Your task to perform on an android device: Open the phone app and click the voicemail tab. Image 0: 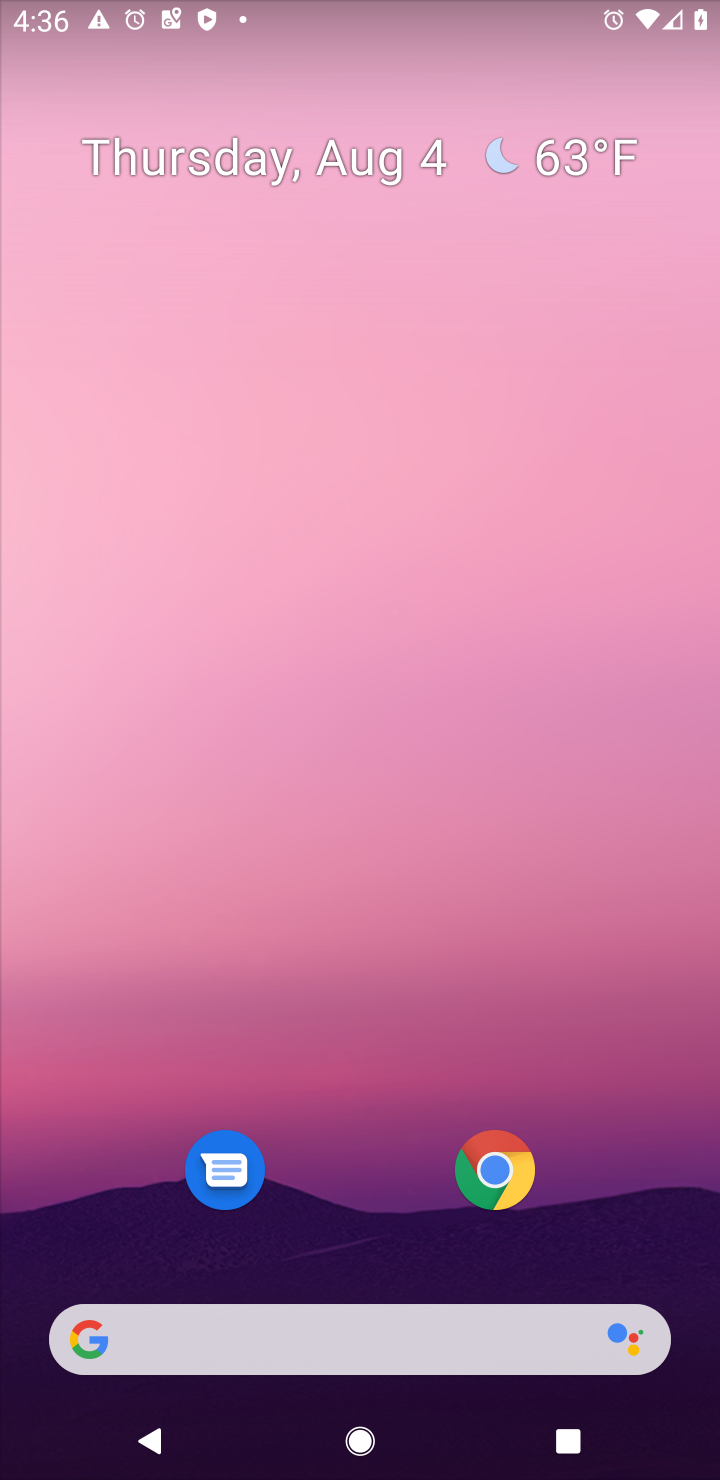
Step 0: drag from (598, 1243) to (444, 317)
Your task to perform on an android device: Open the phone app and click the voicemail tab. Image 1: 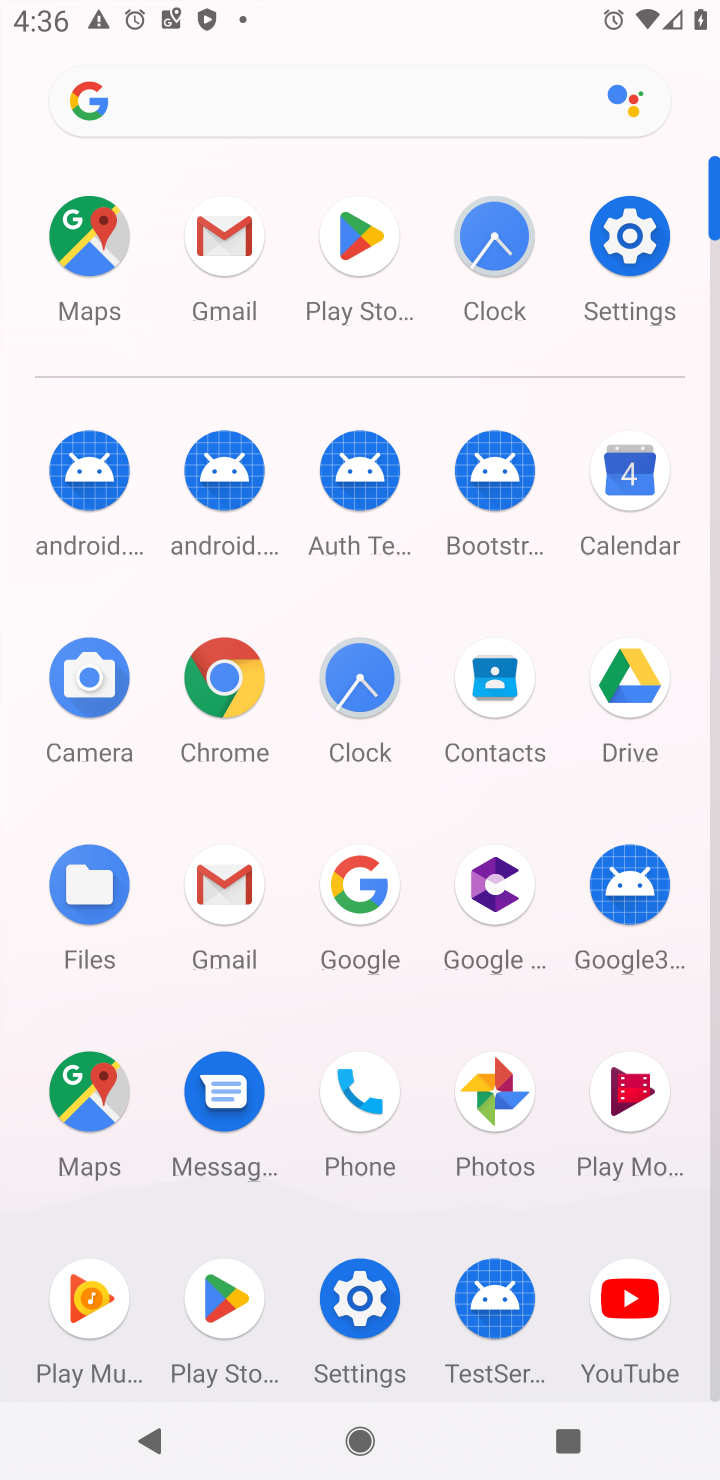
Step 1: click (357, 1100)
Your task to perform on an android device: Open the phone app and click the voicemail tab. Image 2: 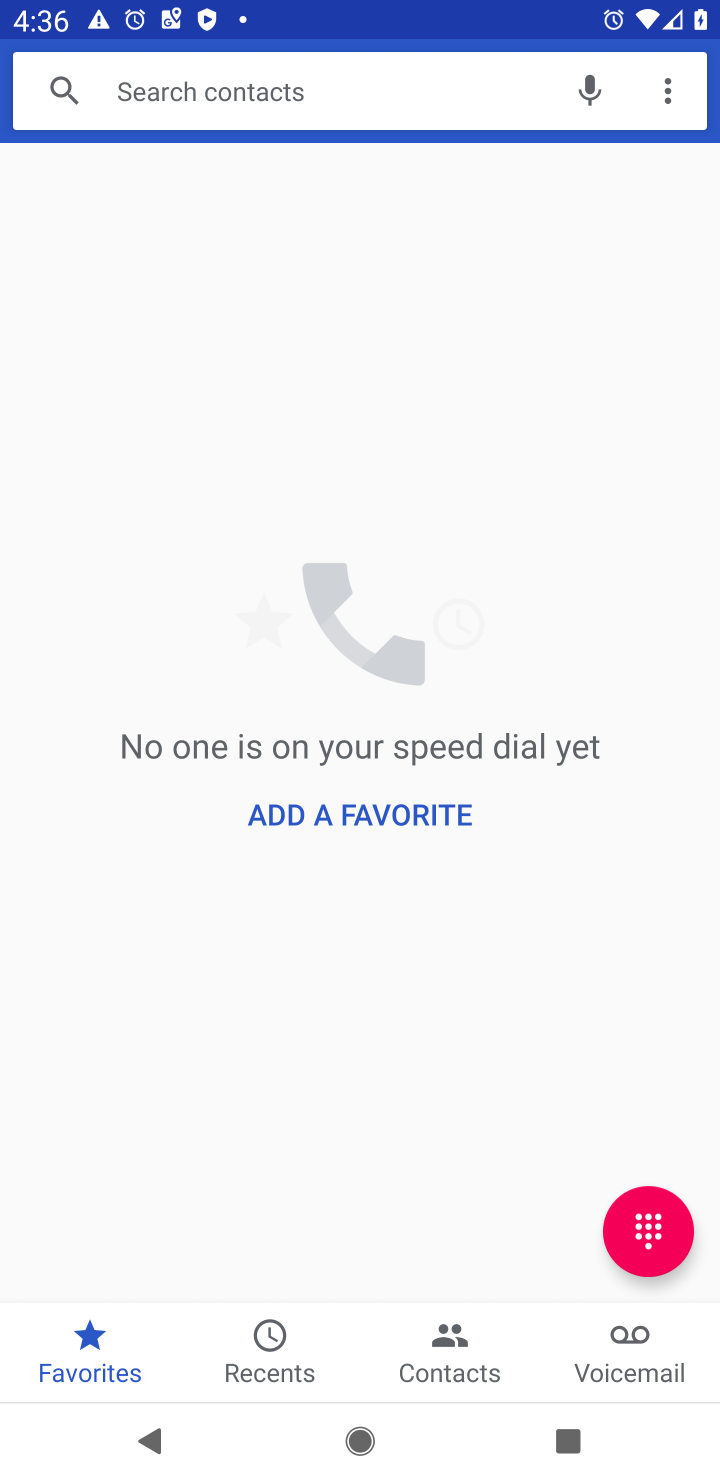
Step 2: click (643, 1356)
Your task to perform on an android device: Open the phone app and click the voicemail tab. Image 3: 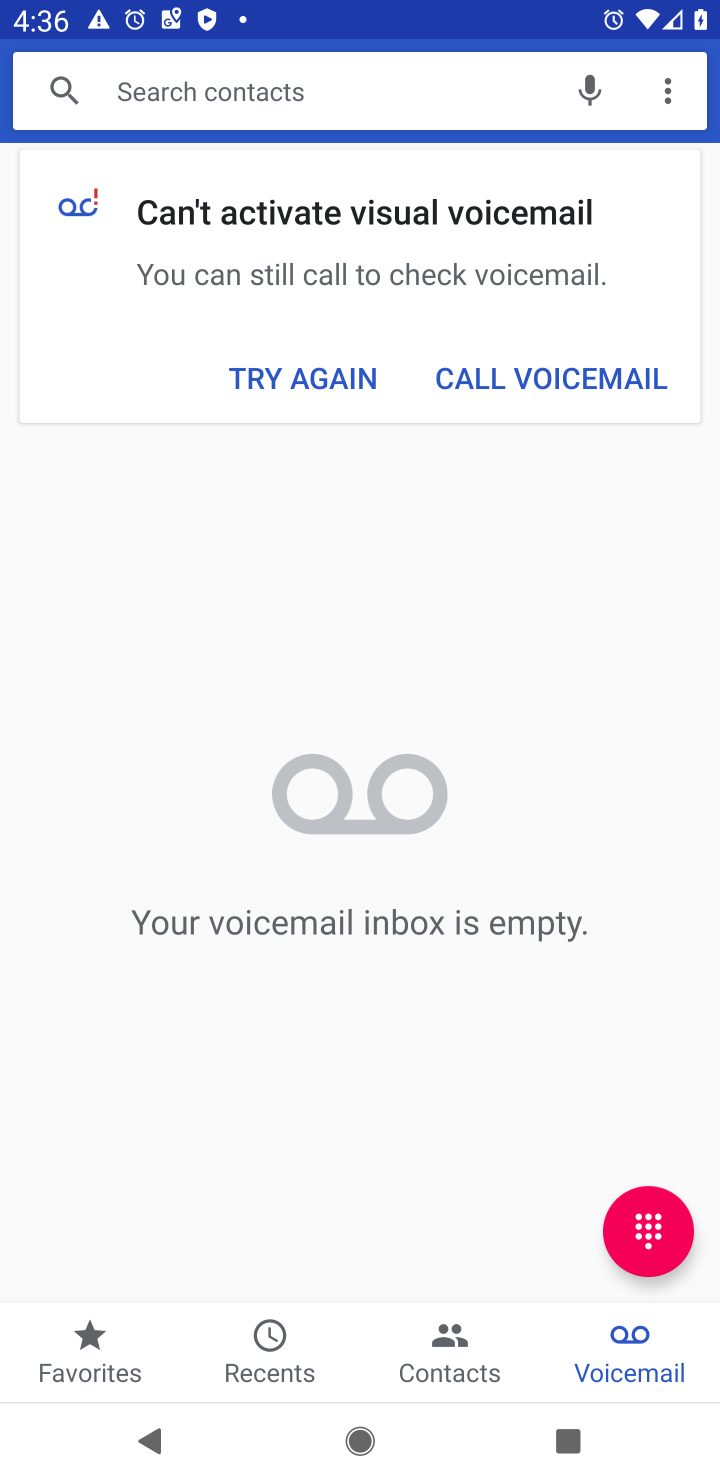
Step 3: task complete